Your task to perform on an android device: Open my contact list Image 0: 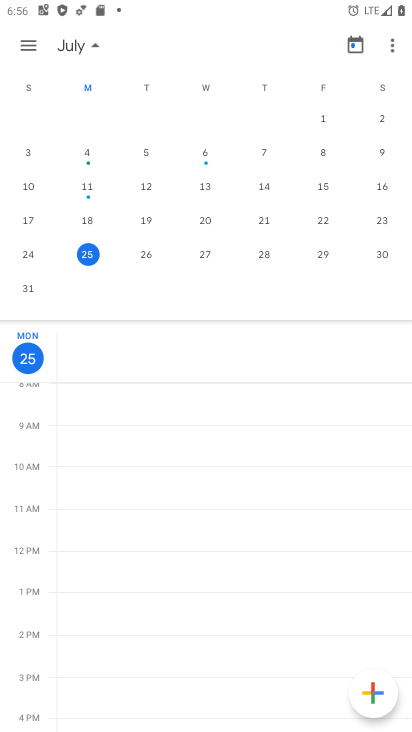
Step 0: press home button
Your task to perform on an android device: Open my contact list Image 1: 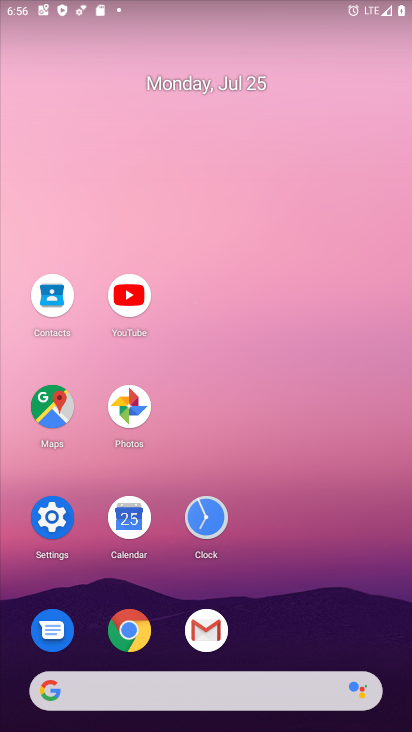
Step 1: click (45, 297)
Your task to perform on an android device: Open my contact list Image 2: 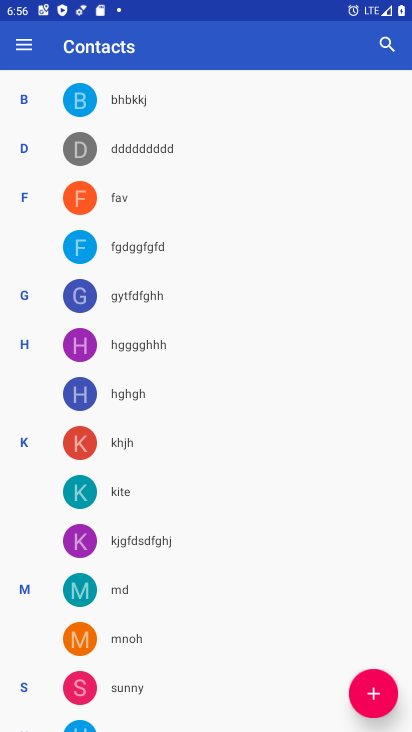
Step 2: task complete